Your task to perform on an android device: allow cookies in the chrome app Image 0: 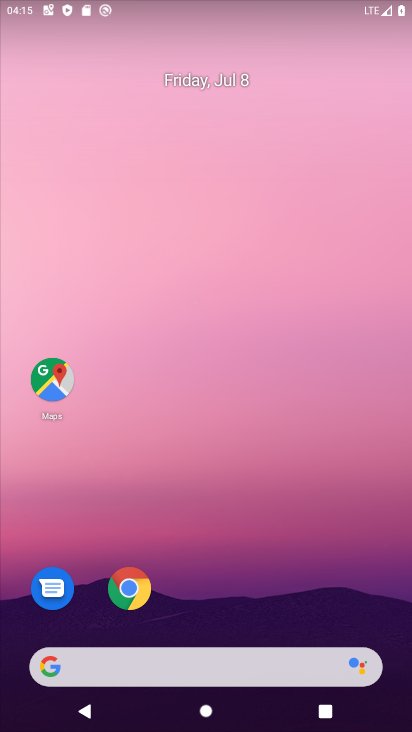
Step 0: drag from (191, 534) to (217, 88)
Your task to perform on an android device: allow cookies in the chrome app Image 1: 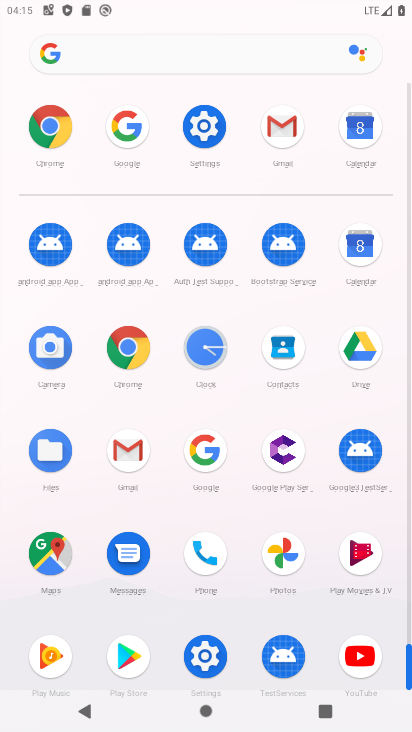
Step 1: click (64, 130)
Your task to perform on an android device: allow cookies in the chrome app Image 2: 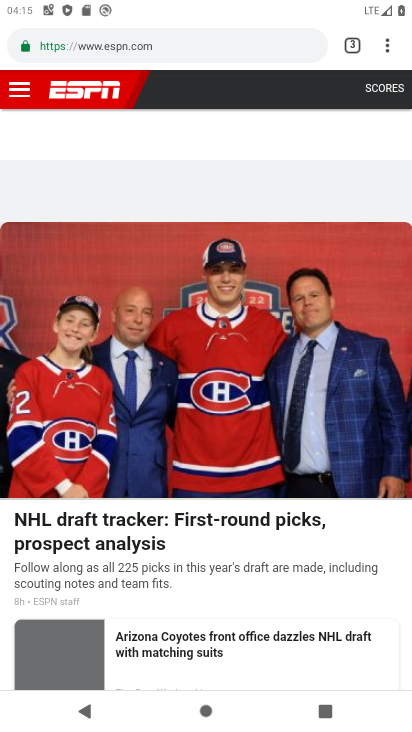
Step 2: click (386, 45)
Your task to perform on an android device: allow cookies in the chrome app Image 3: 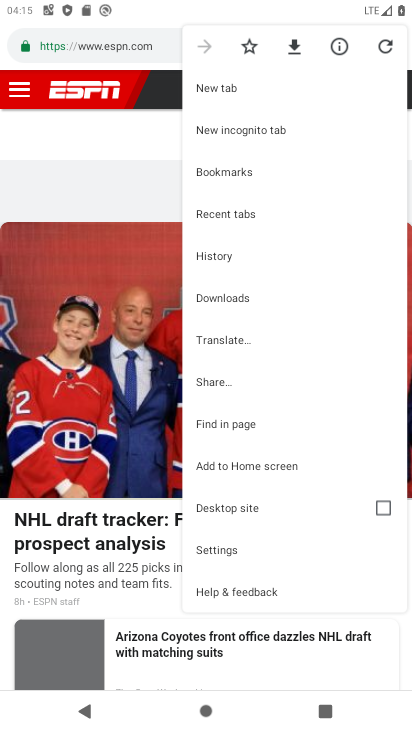
Step 3: click (226, 548)
Your task to perform on an android device: allow cookies in the chrome app Image 4: 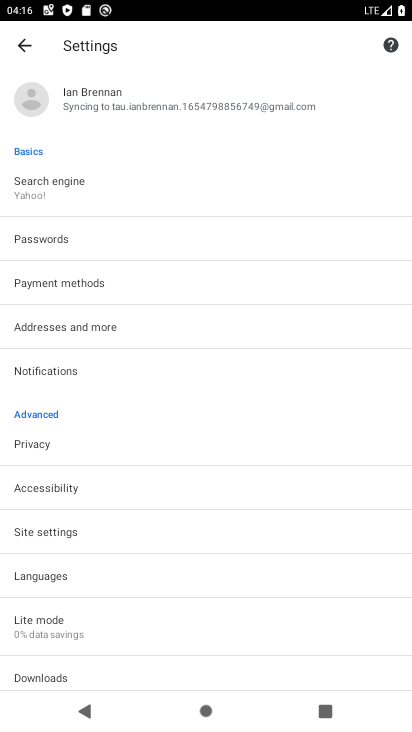
Step 4: click (42, 531)
Your task to perform on an android device: allow cookies in the chrome app Image 5: 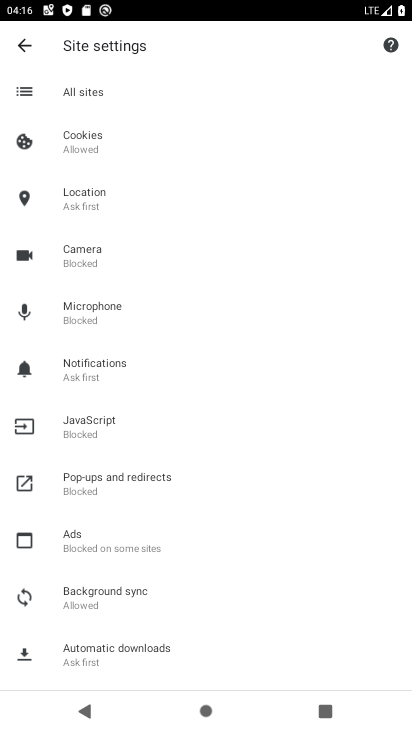
Step 5: click (82, 141)
Your task to perform on an android device: allow cookies in the chrome app Image 6: 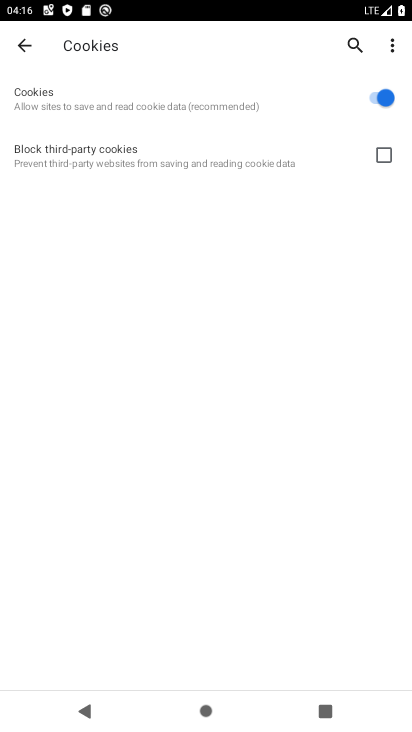
Step 6: task complete